Your task to perform on an android device: change keyboard looks Image 0: 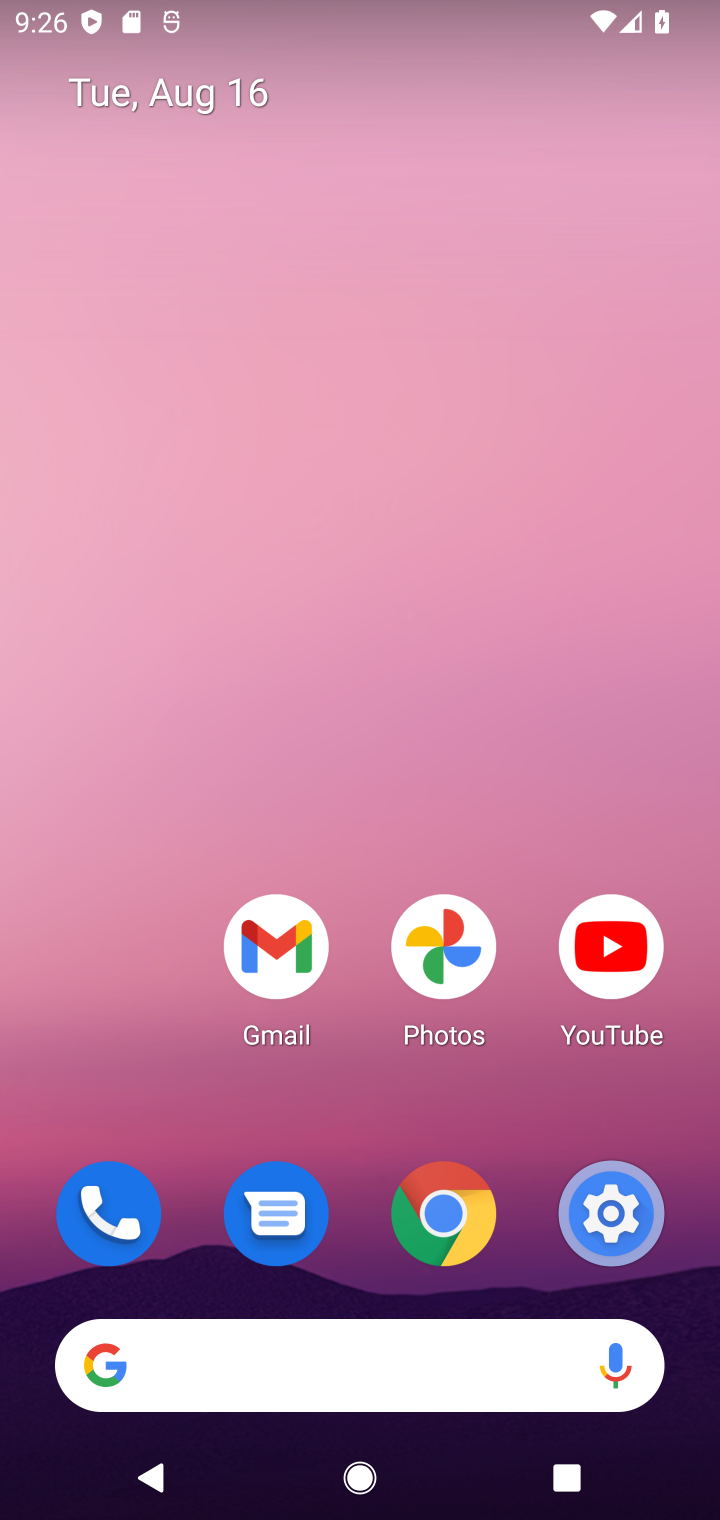
Step 0: click (418, 357)
Your task to perform on an android device: change keyboard looks Image 1: 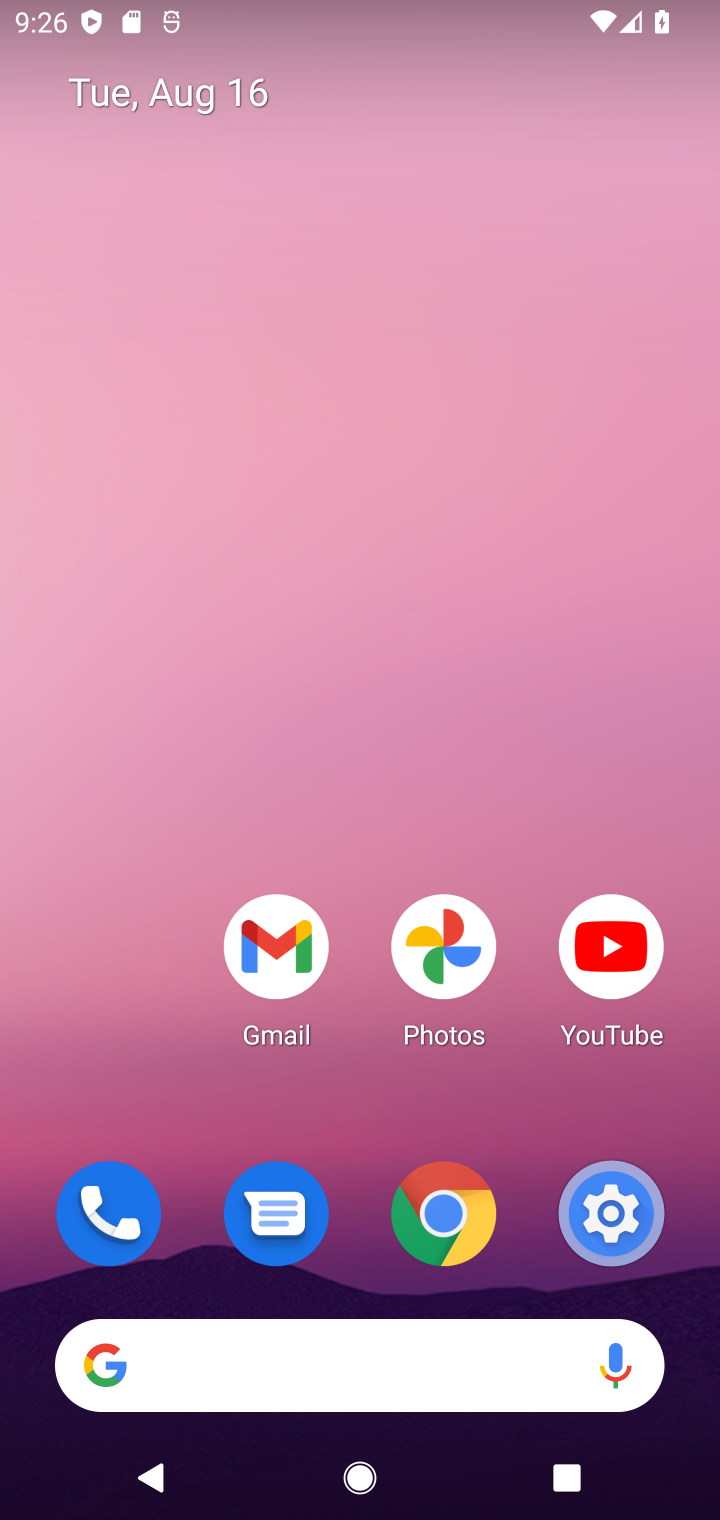
Step 1: drag from (338, 1102) to (355, 345)
Your task to perform on an android device: change keyboard looks Image 2: 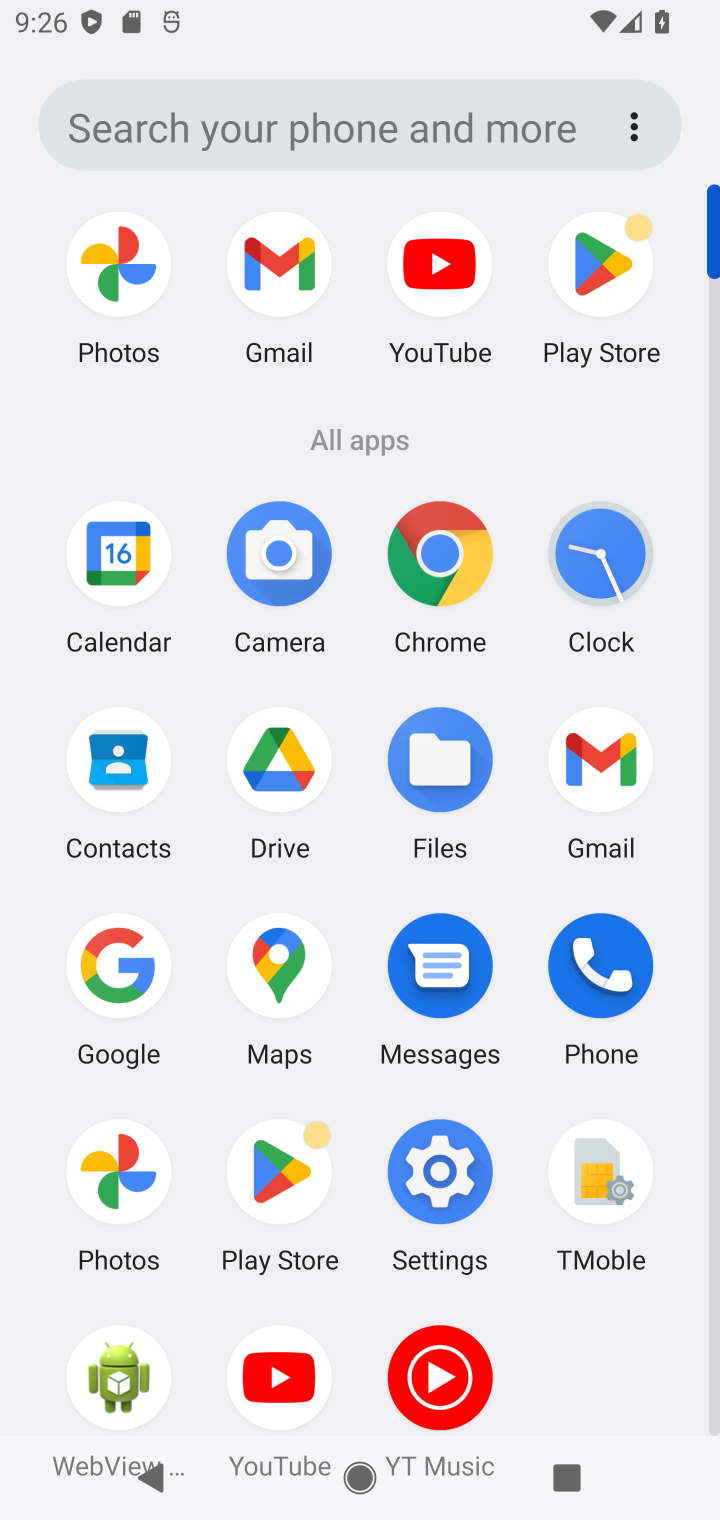
Step 2: click (458, 1163)
Your task to perform on an android device: change keyboard looks Image 3: 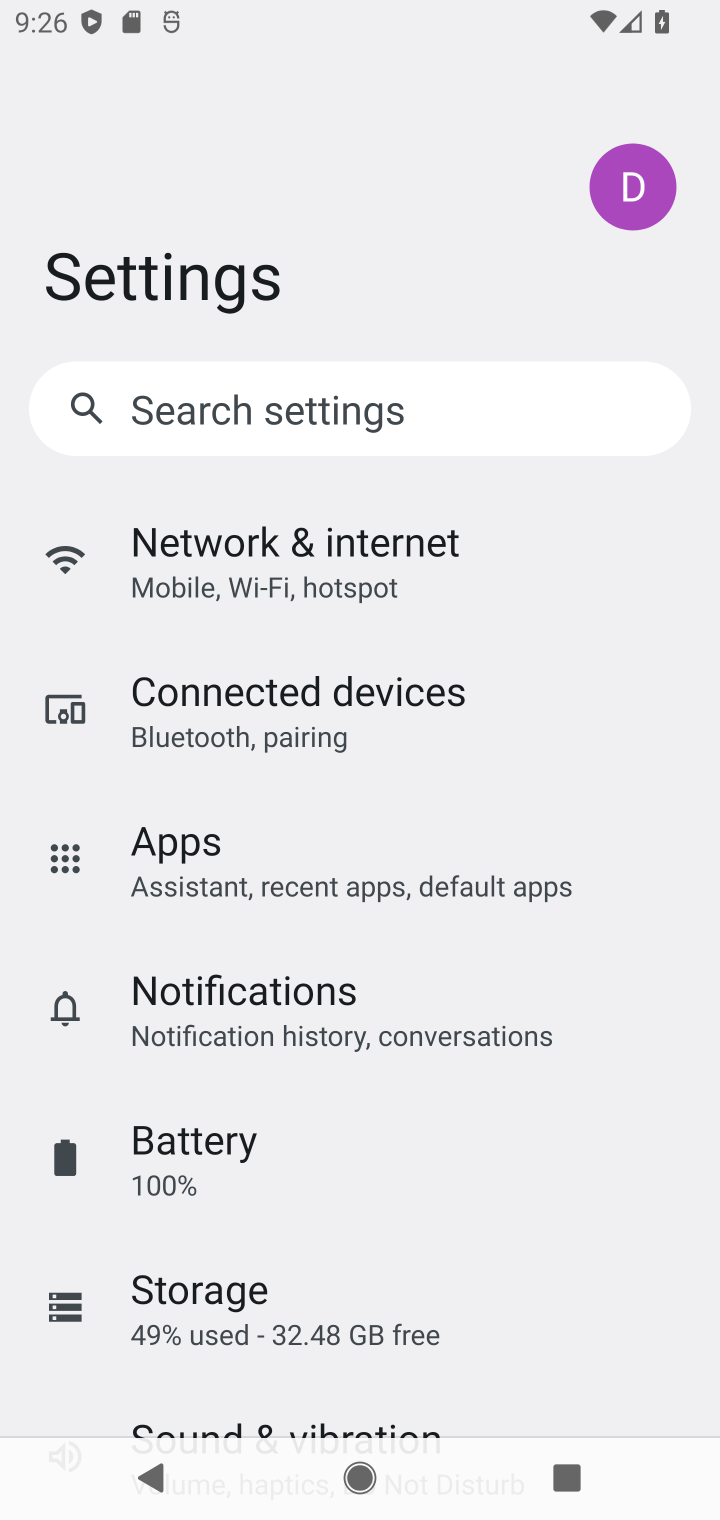
Step 3: drag from (350, 1181) to (427, 403)
Your task to perform on an android device: change keyboard looks Image 4: 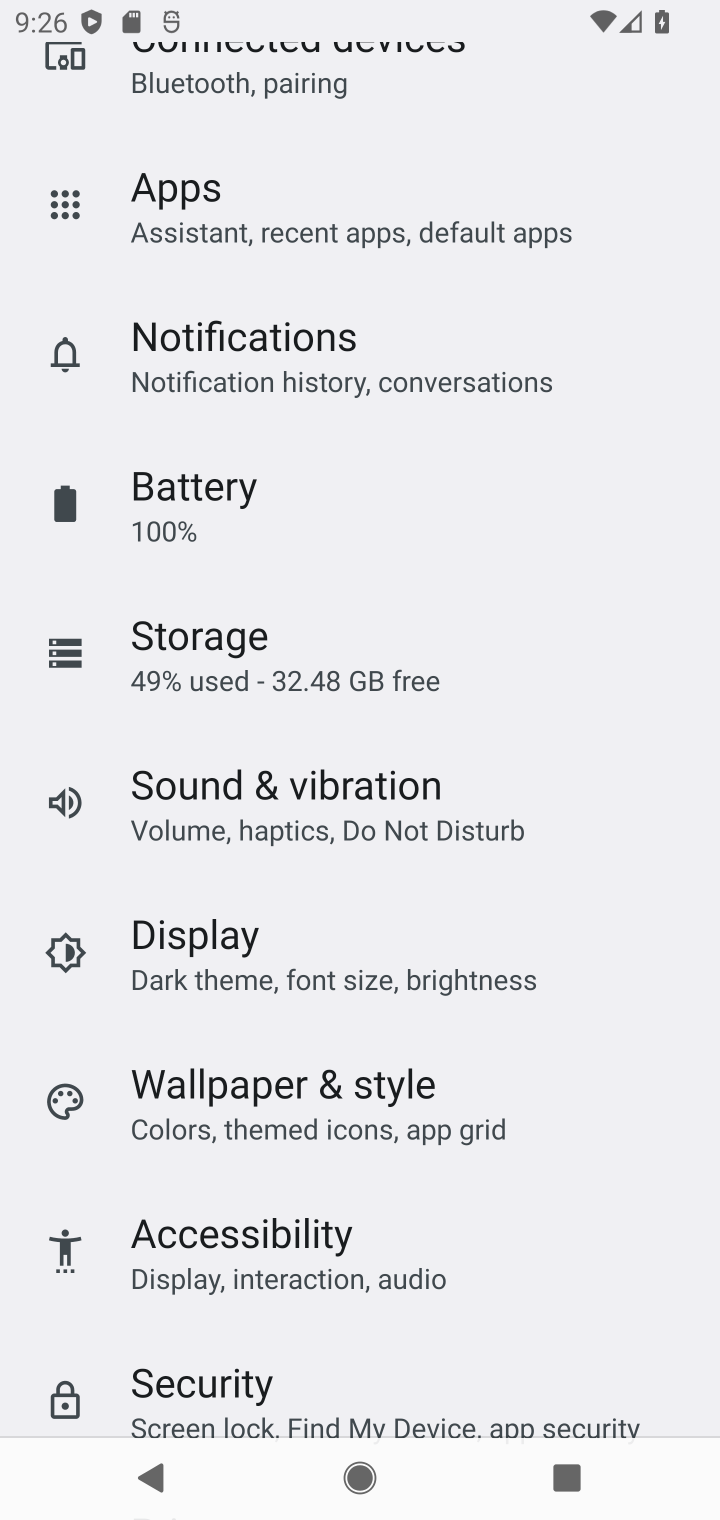
Step 4: drag from (380, 1276) to (396, 885)
Your task to perform on an android device: change keyboard looks Image 5: 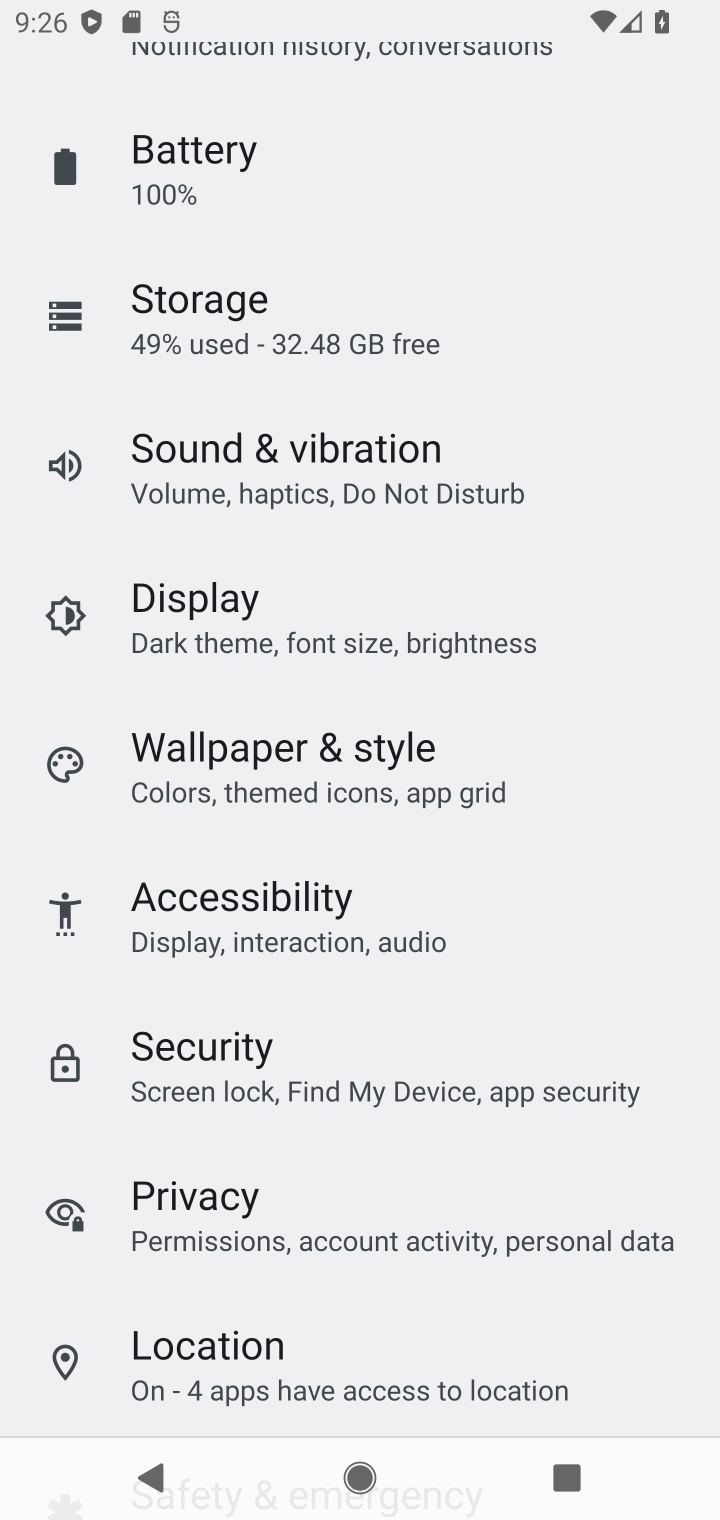
Step 5: drag from (289, 1343) to (514, 634)
Your task to perform on an android device: change keyboard looks Image 6: 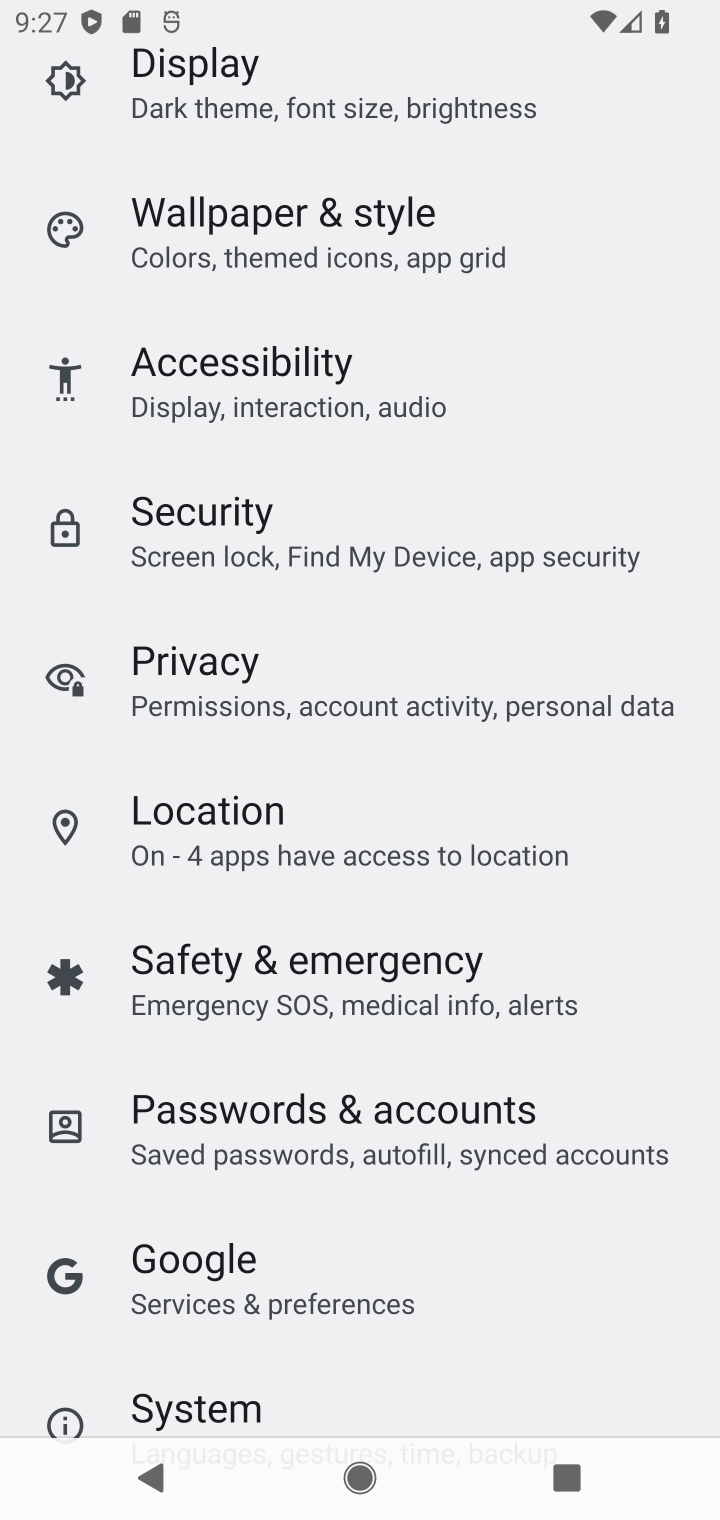
Step 6: click (217, 376)
Your task to perform on an android device: change keyboard looks Image 7: 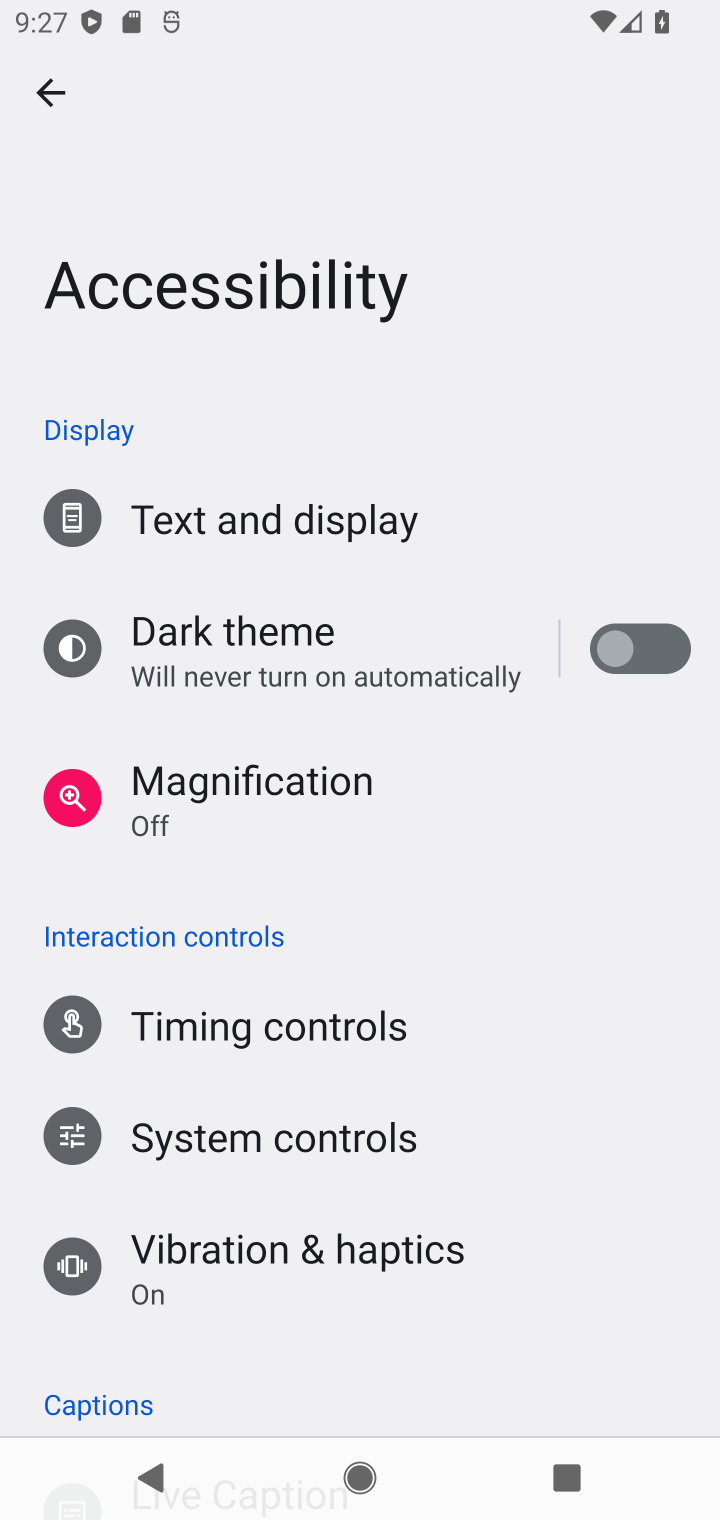
Step 7: click (332, 544)
Your task to perform on an android device: change keyboard looks Image 8: 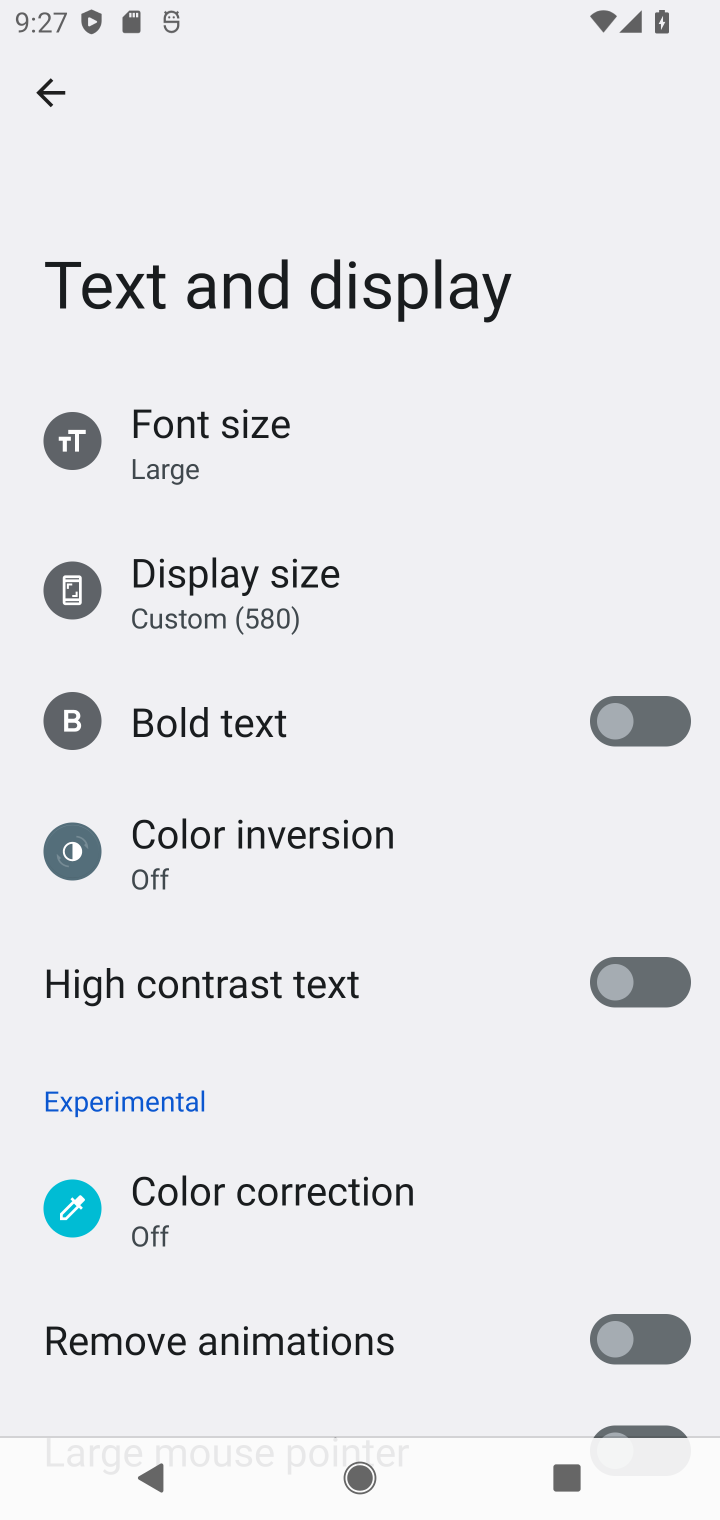
Step 8: click (34, 127)
Your task to perform on an android device: change keyboard looks Image 9: 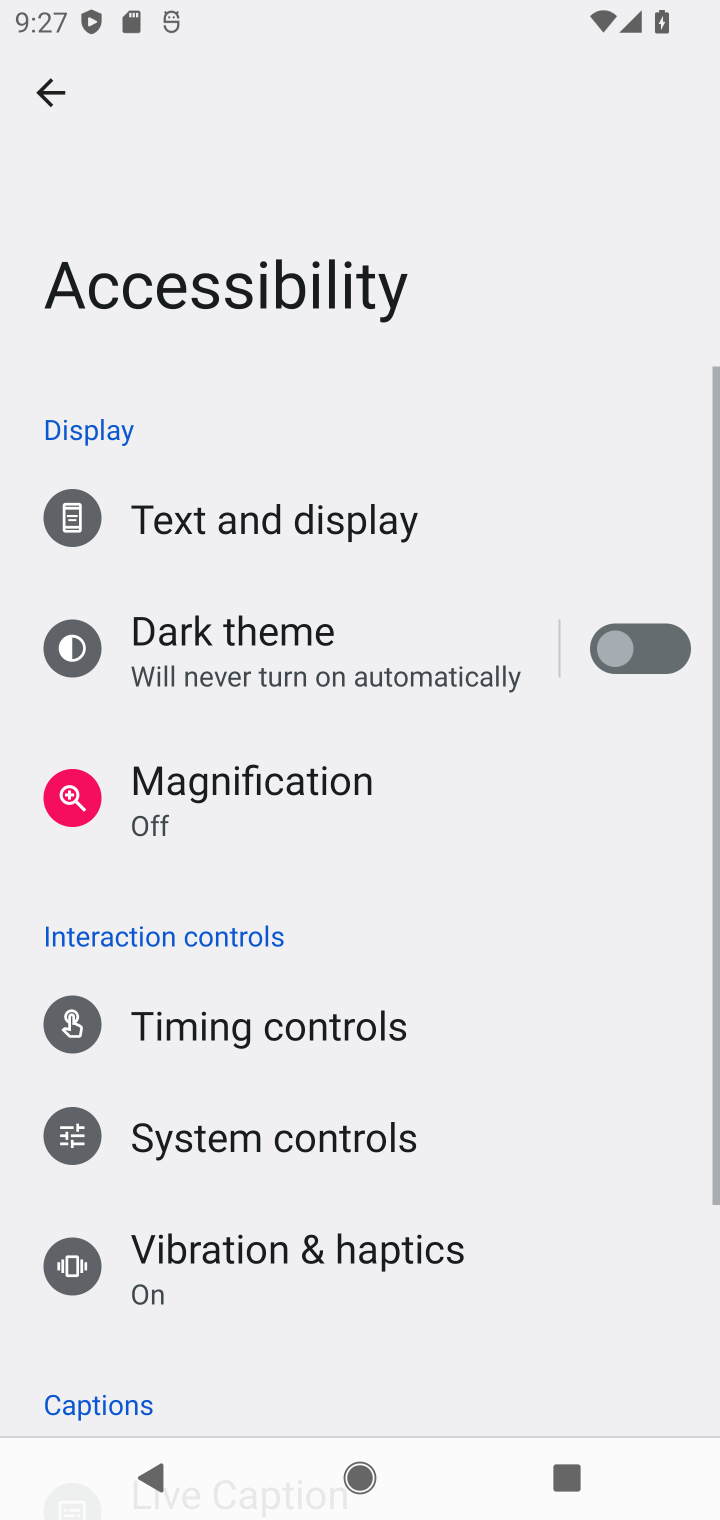
Step 9: click (34, 105)
Your task to perform on an android device: change keyboard looks Image 10: 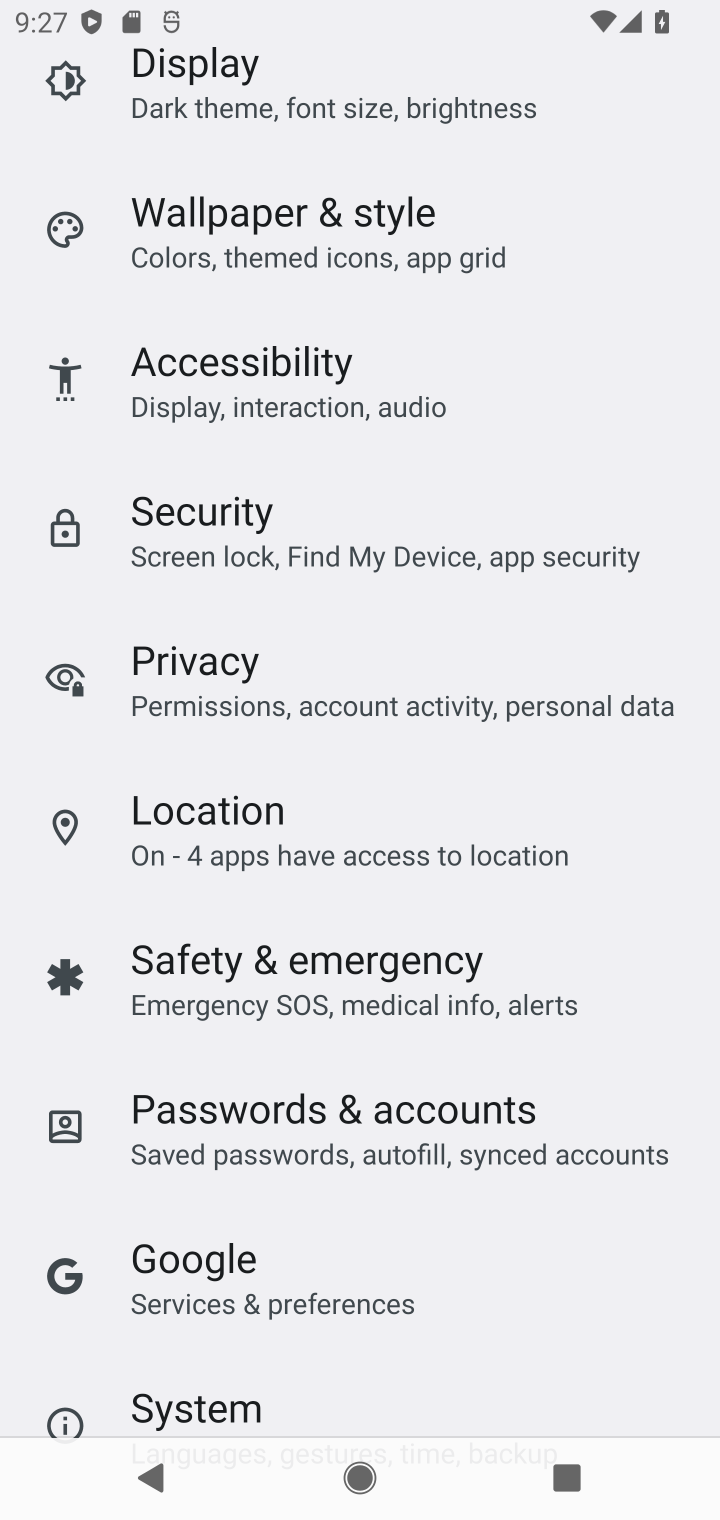
Step 10: drag from (289, 1177) to (362, 542)
Your task to perform on an android device: change keyboard looks Image 11: 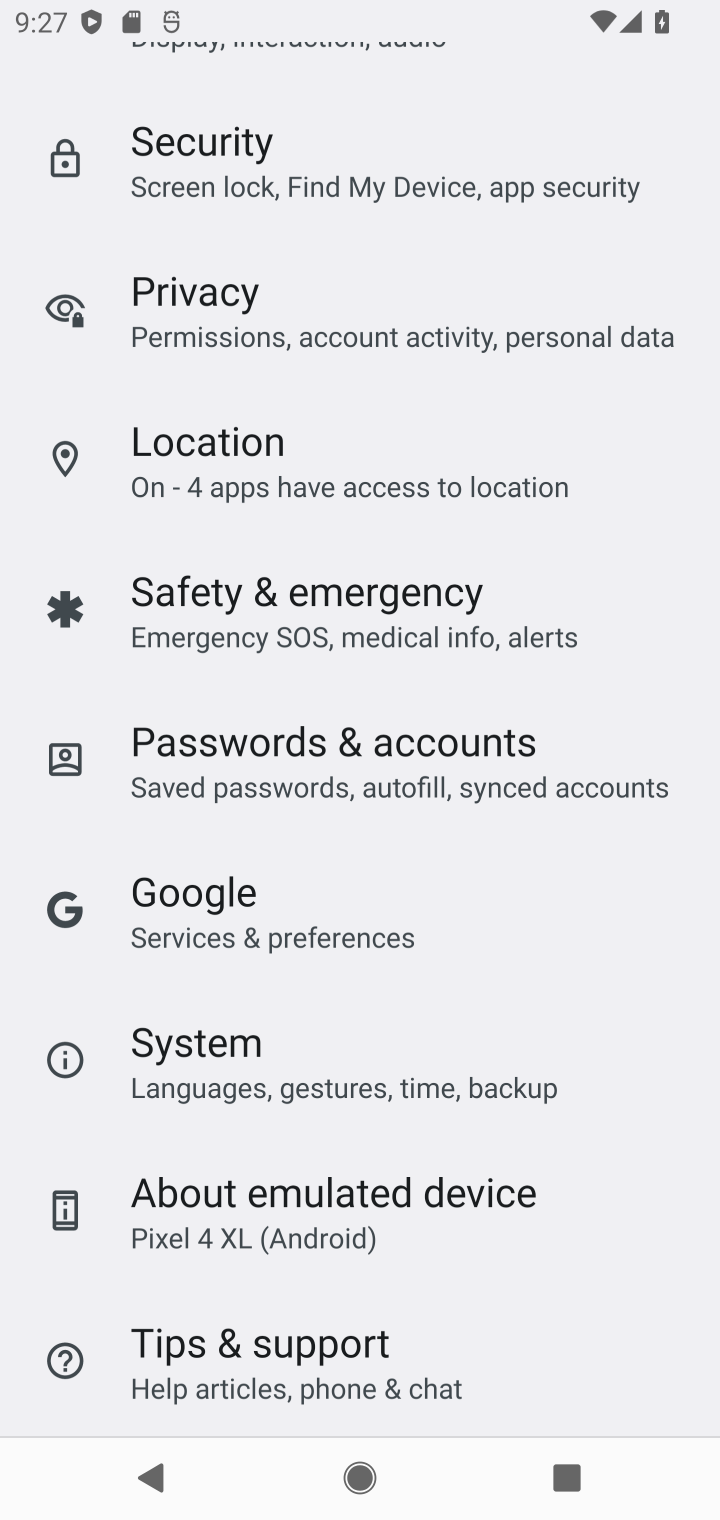
Step 11: click (274, 1090)
Your task to perform on an android device: change keyboard looks Image 12: 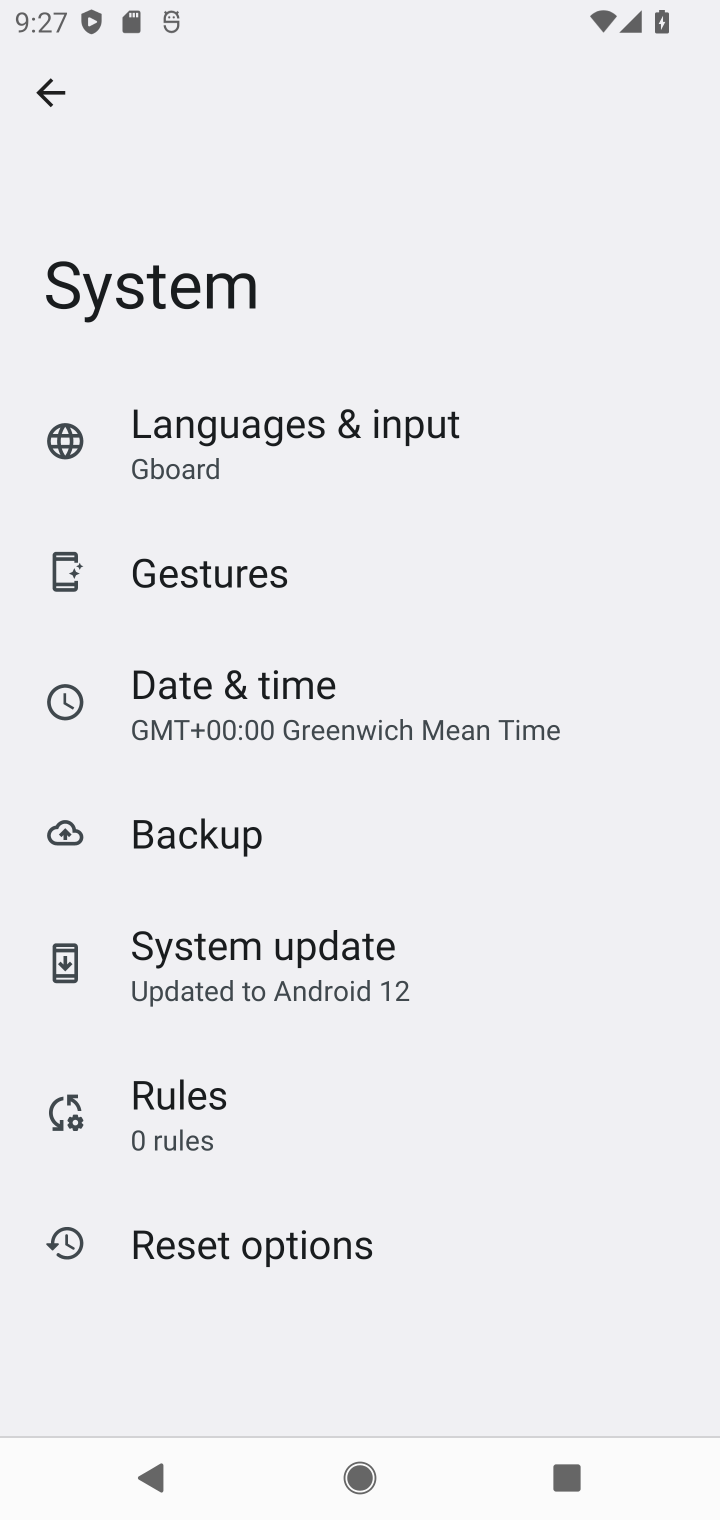
Step 12: click (271, 442)
Your task to perform on an android device: change keyboard looks Image 13: 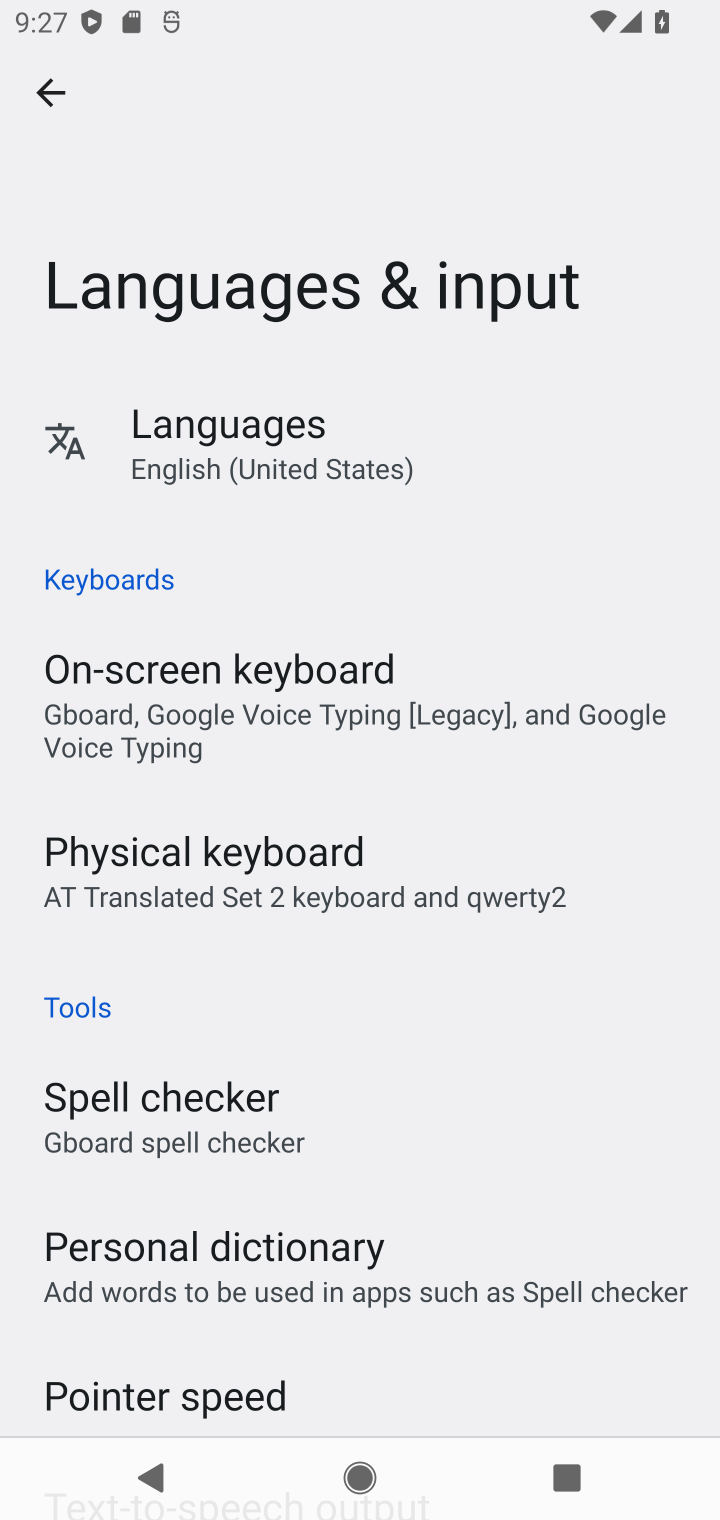
Step 13: click (236, 686)
Your task to perform on an android device: change keyboard looks Image 14: 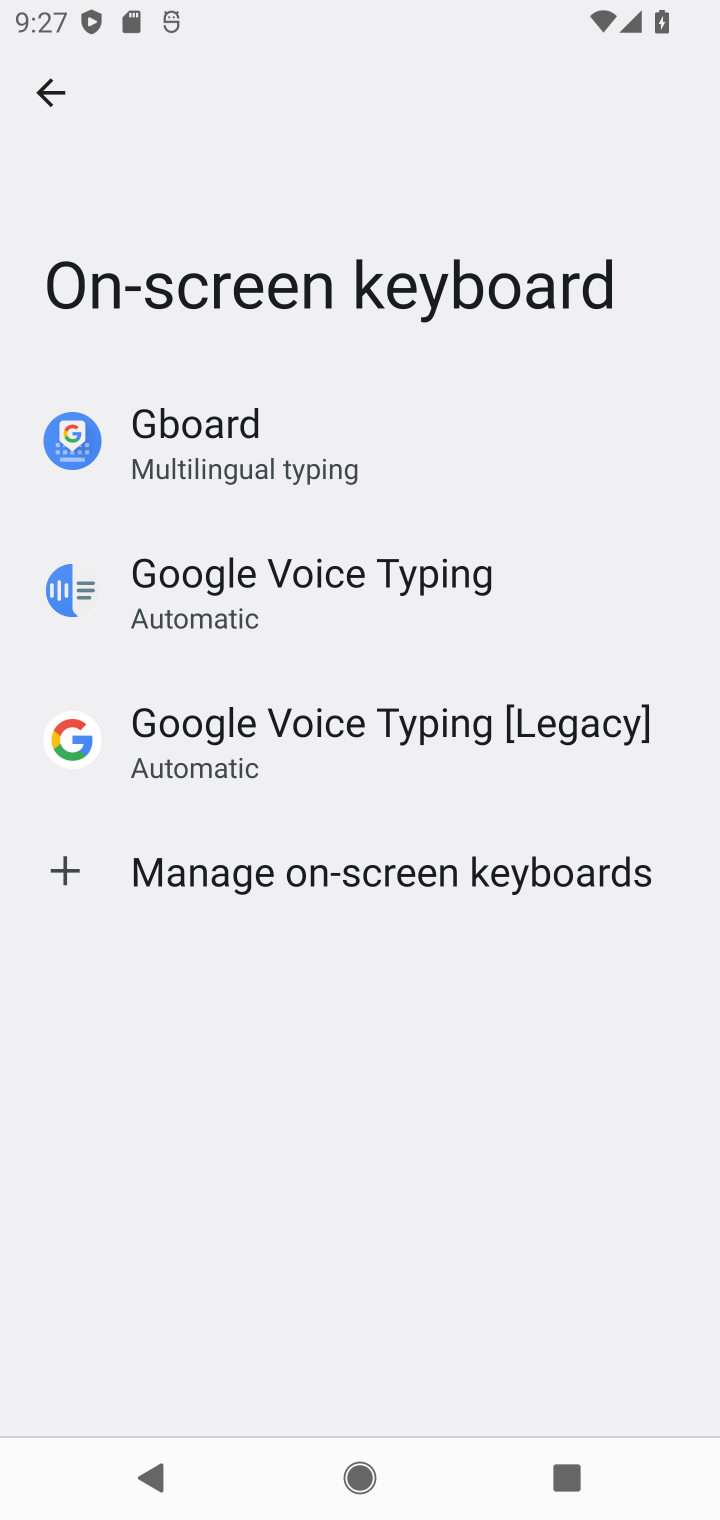
Step 14: click (226, 429)
Your task to perform on an android device: change keyboard looks Image 15: 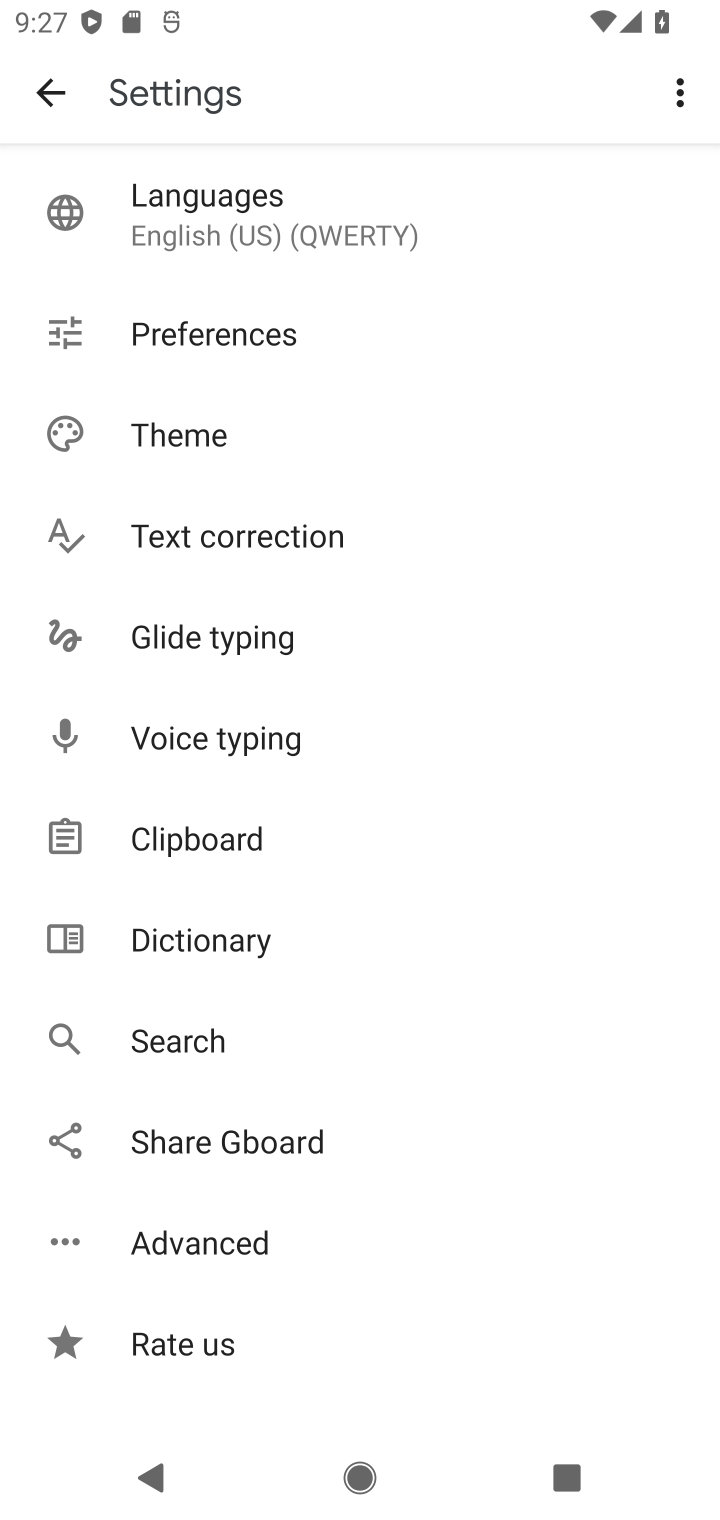
Step 15: click (190, 447)
Your task to perform on an android device: change keyboard looks Image 16: 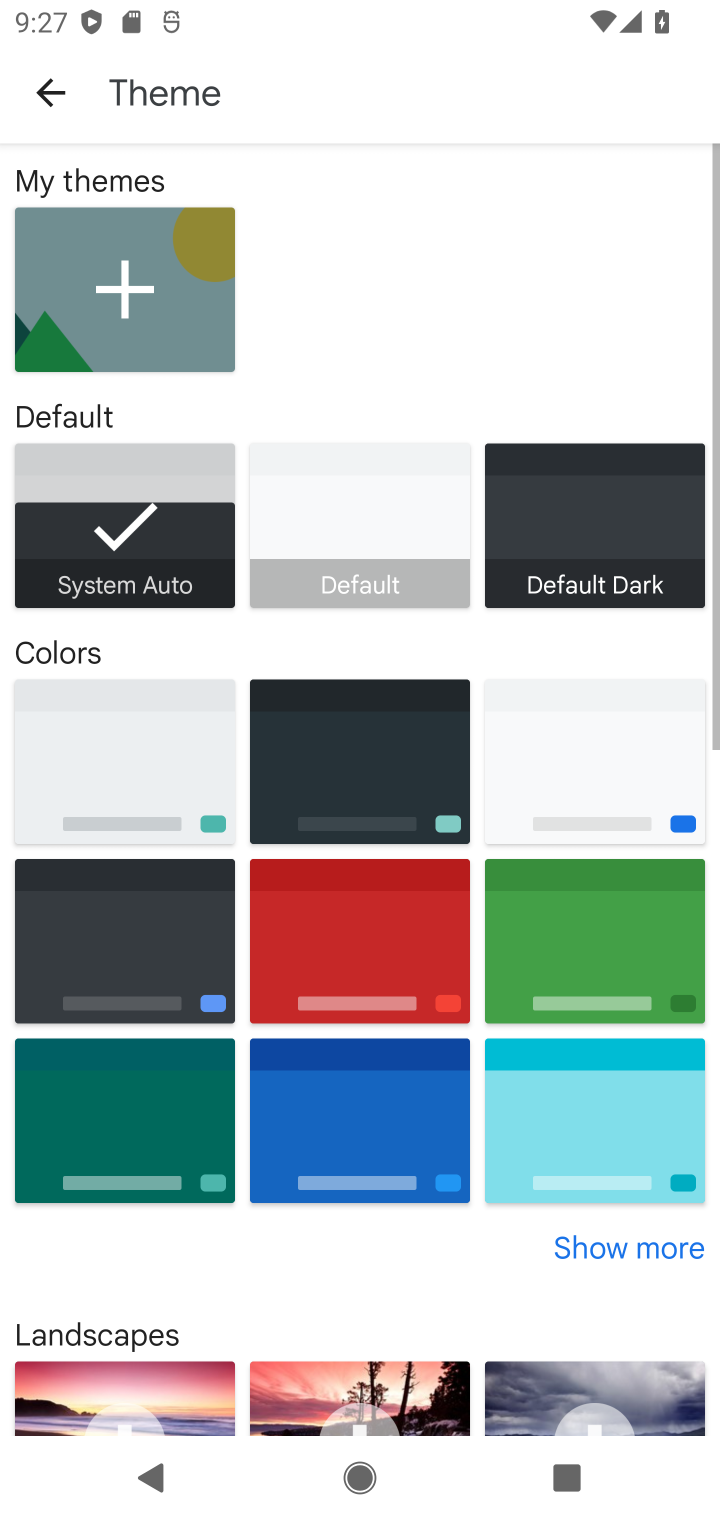
Step 16: click (404, 979)
Your task to perform on an android device: change keyboard looks Image 17: 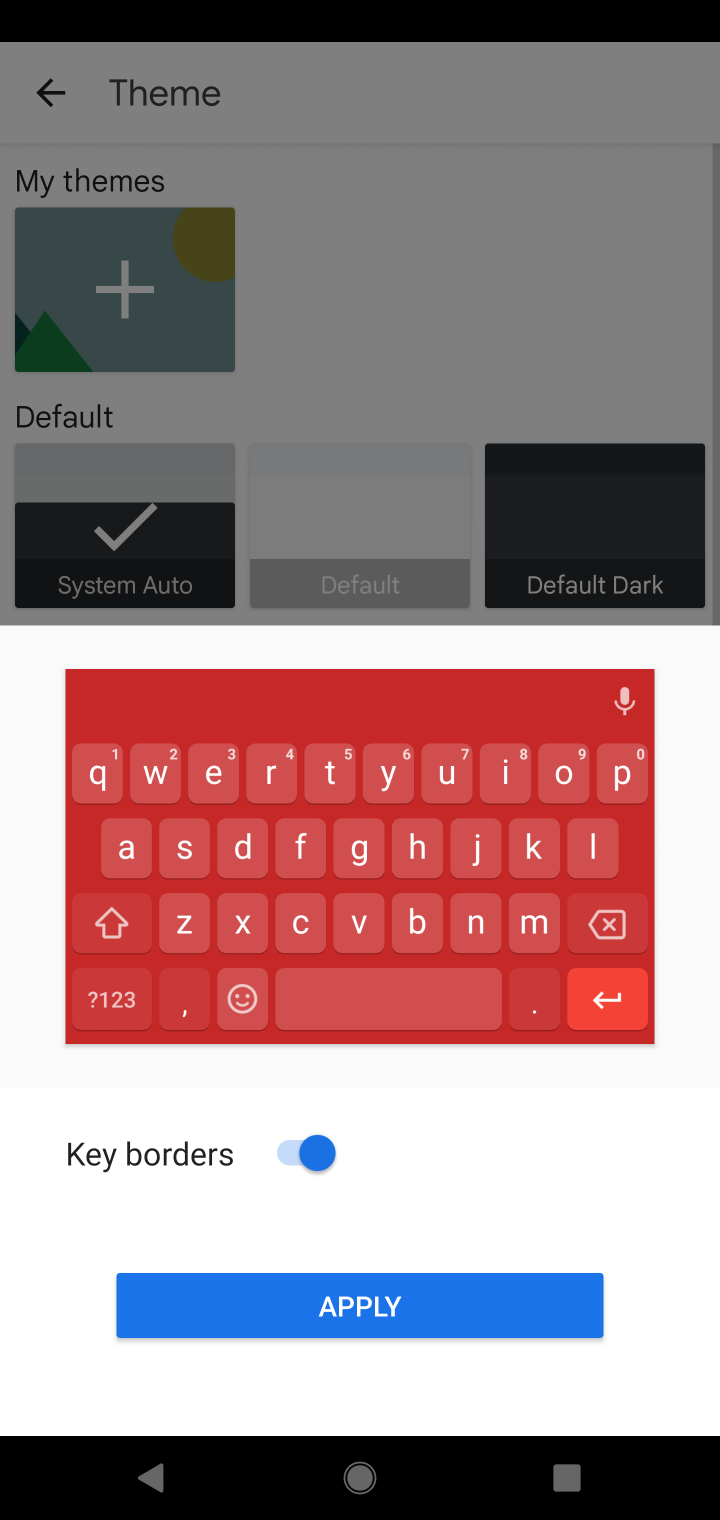
Step 17: click (438, 1306)
Your task to perform on an android device: change keyboard looks Image 18: 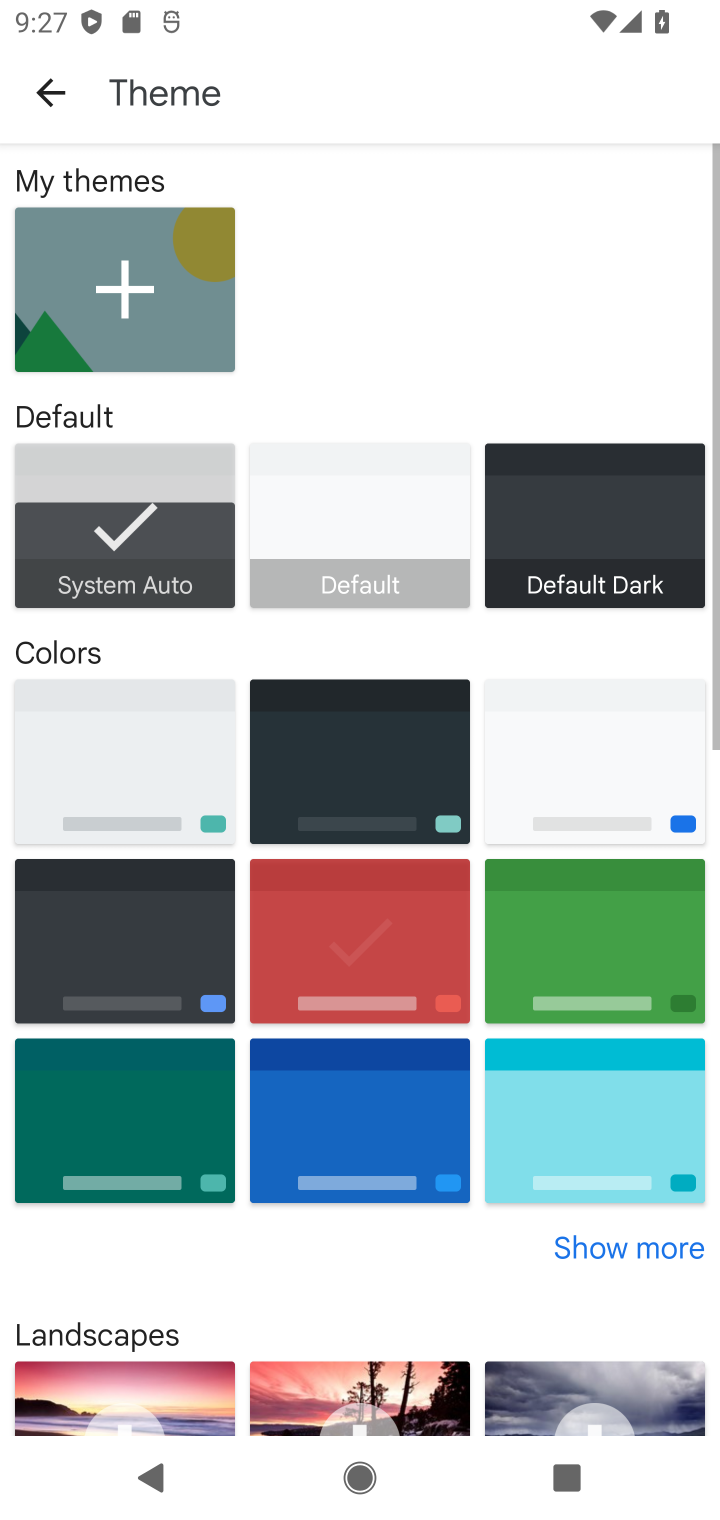
Step 18: task complete